Your task to perform on an android device: Go to Yahoo.com Image 0: 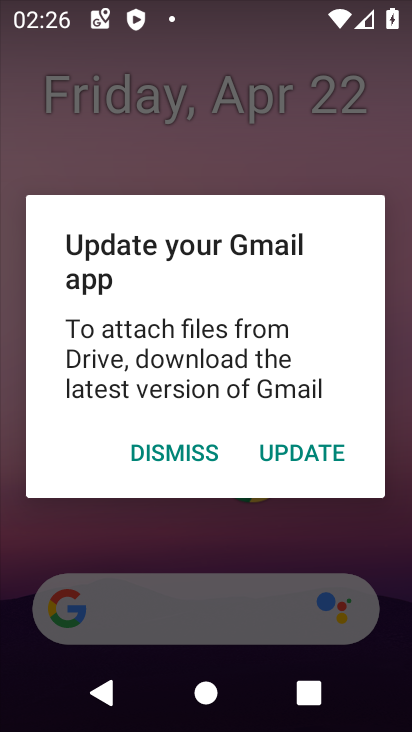
Step 0: press home button
Your task to perform on an android device: Go to Yahoo.com Image 1: 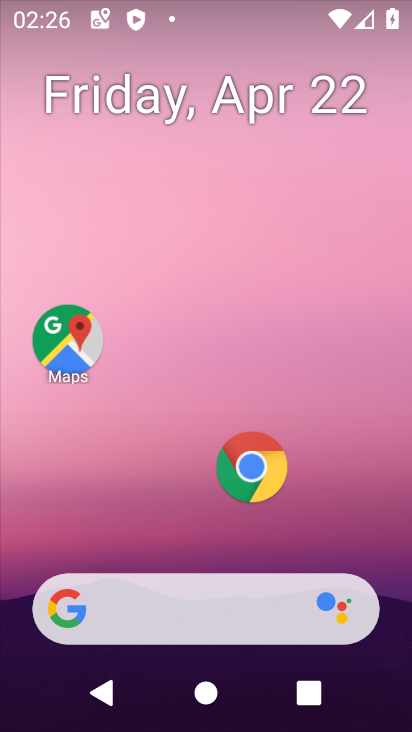
Step 1: click (244, 463)
Your task to perform on an android device: Go to Yahoo.com Image 2: 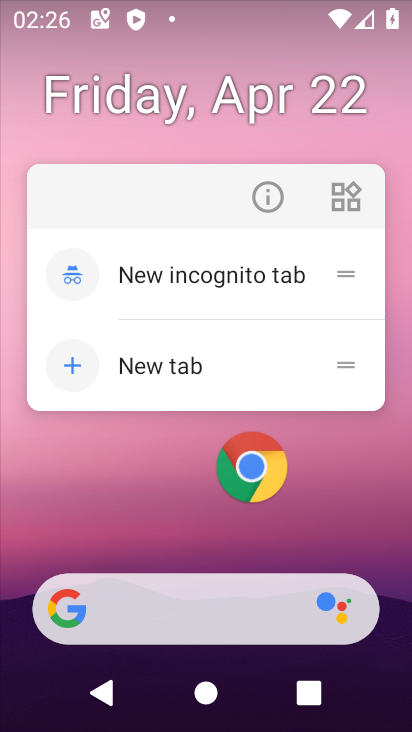
Step 2: click (263, 197)
Your task to perform on an android device: Go to Yahoo.com Image 3: 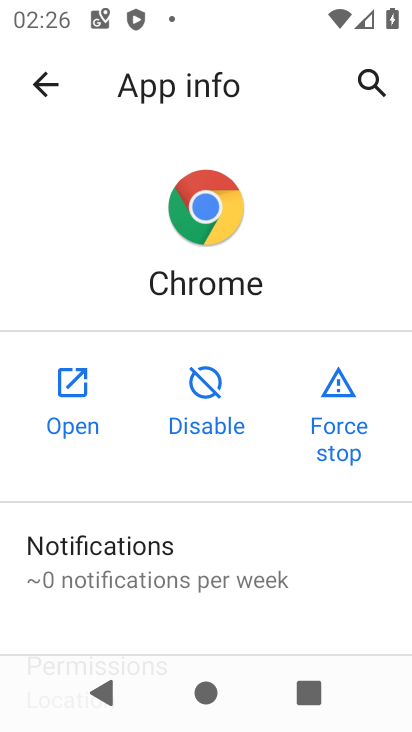
Step 3: click (82, 391)
Your task to perform on an android device: Go to Yahoo.com Image 4: 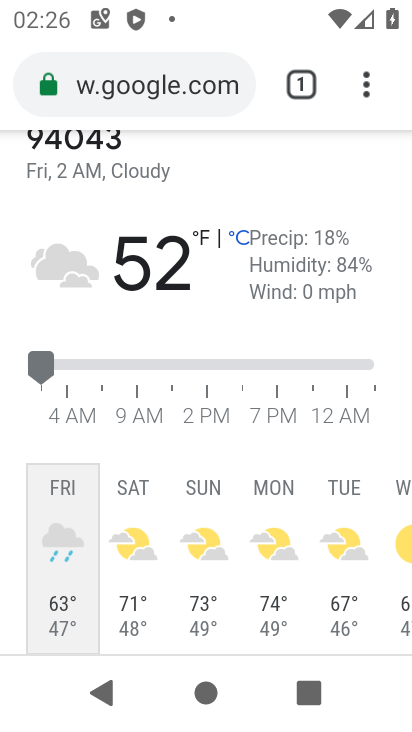
Step 4: click (107, 95)
Your task to perform on an android device: Go to Yahoo.com Image 5: 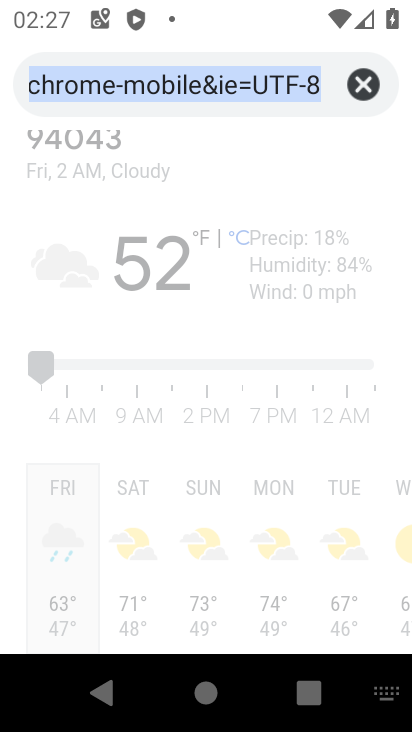
Step 5: type "Yahoo.com"
Your task to perform on an android device: Go to Yahoo.com Image 6: 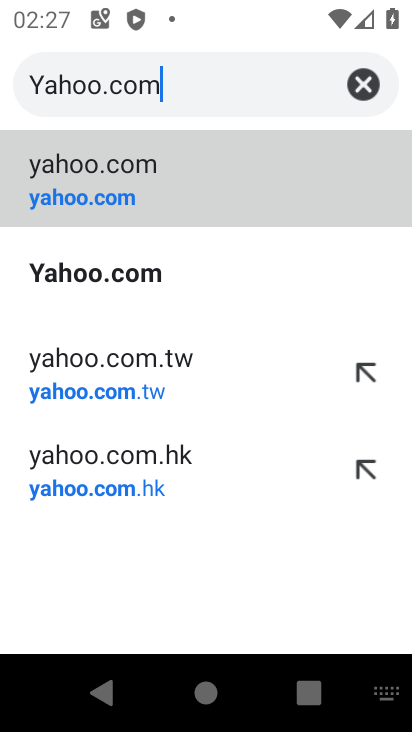
Step 6: click (128, 193)
Your task to perform on an android device: Go to Yahoo.com Image 7: 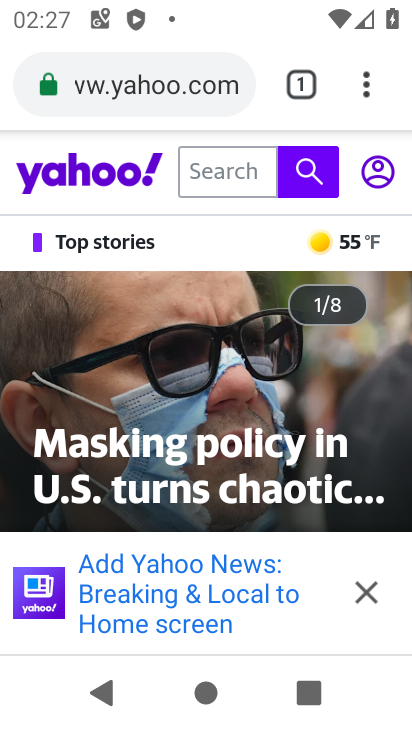
Step 7: task complete